Your task to perform on an android device: change keyboard looks Image 0: 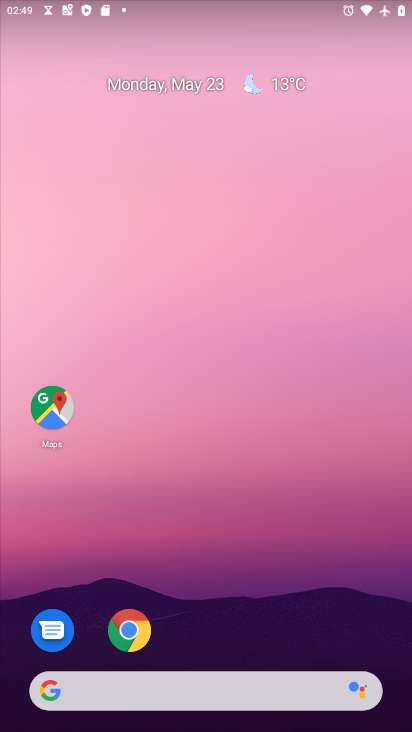
Step 0: drag from (254, 583) to (198, 2)
Your task to perform on an android device: change keyboard looks Image 1: 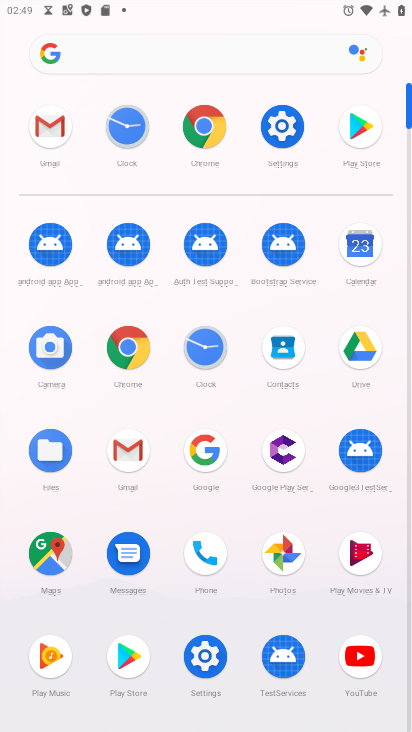
Step 1: click (273, 111)
Your task to perform on an android device: change keyboard looks Image 2: 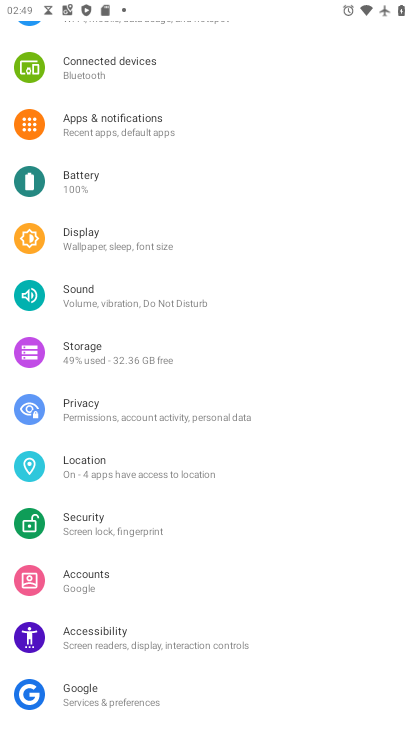
Step 2: drag from (275, 573) to (188, 42)
Your task to perform on an android device: change keyboard looks Image 3: 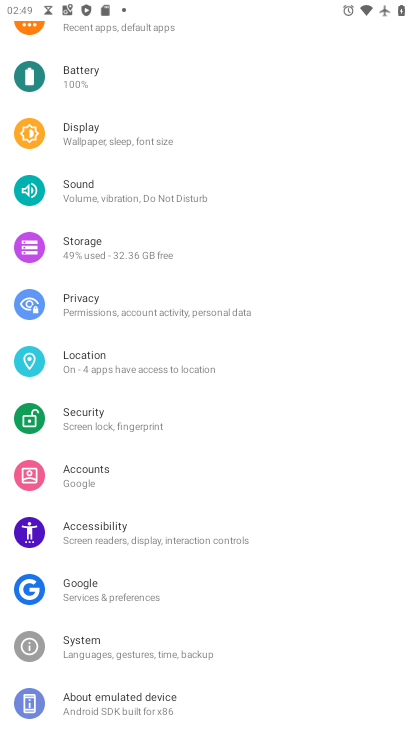
Step 3: click (187, 668)
Your task to perform on an android device: change keyboard looks Image 4: 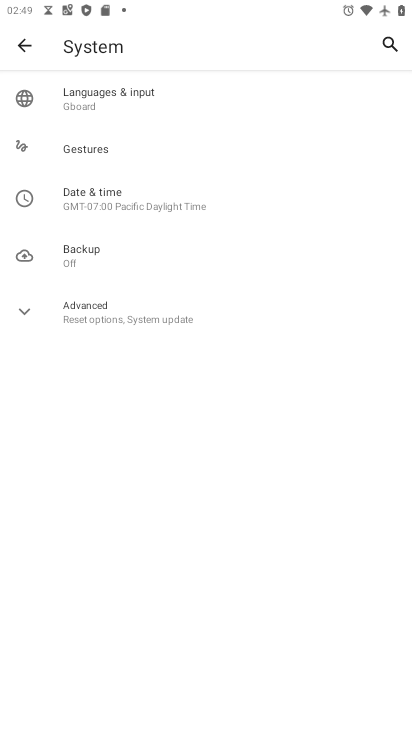
Step 4: click (160, 107)
Your task to perform on an android device: change keyboard looks Image 5: 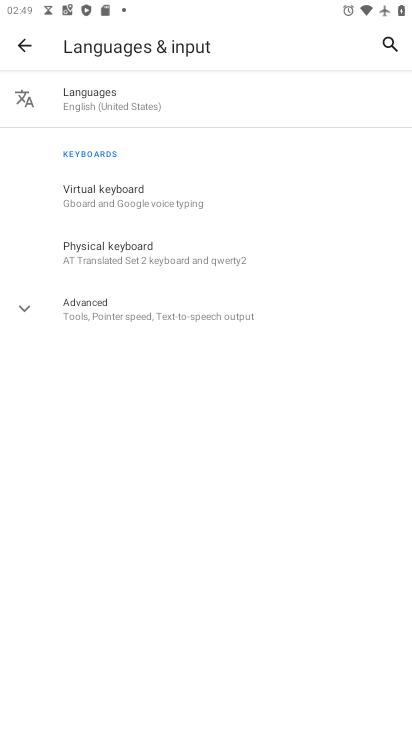
Step 5: click (182, 182)
Your task to perform on an android device: change keyboard looks Image 6: 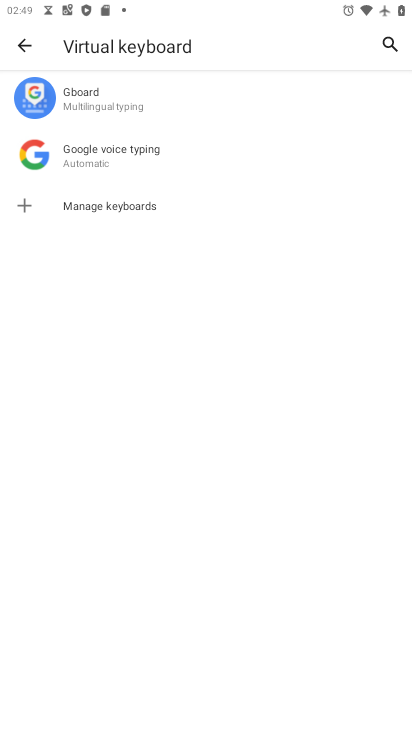
Step 6: click (220, 102)
Your task to perform on an android device: change keyboard looks Image 7: 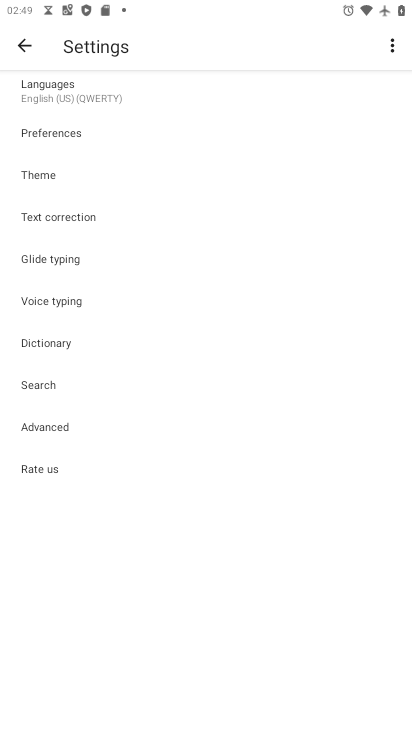
Step 7: click (84, 178)
Your task to perform on an android device: change keyboard looks Image 8: 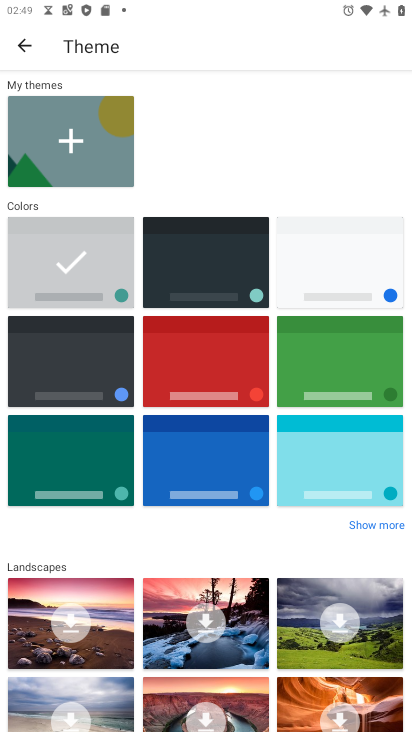
Step 8: click (235, 385)
Your task to perform on an android device: change keyboard looks Image 9: 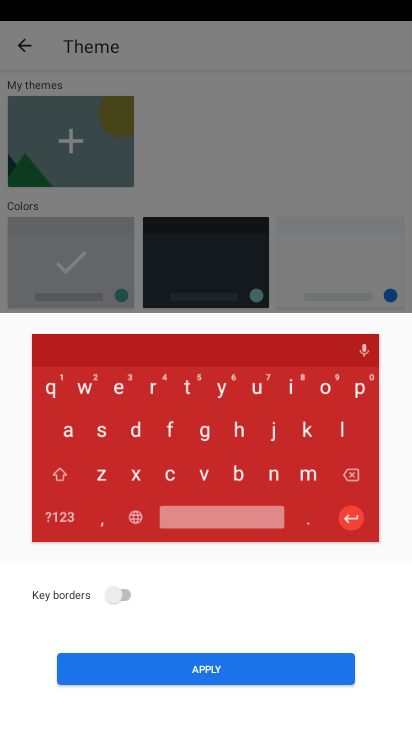
Step 9: click (291, 663)
Your task to perform on an android device: change keyboard looks Image 10: 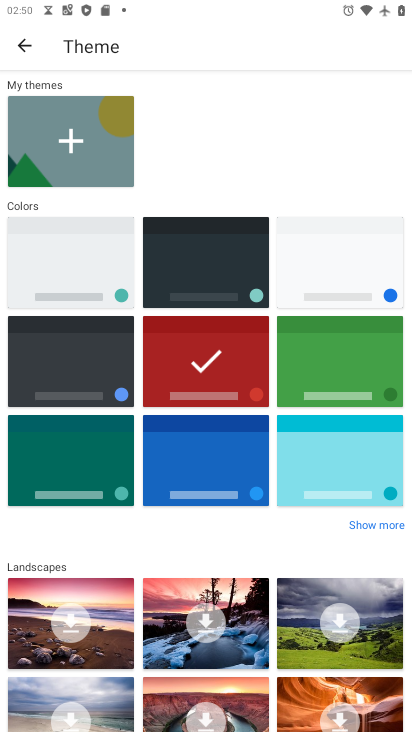
Step 10: task complete